Your task to perform on an android device: View the shopping cart on bestbuy.com. Search for corsair k70 on bestbuy.com, select the first entry, add it to the cart, then select checkout. Image 0: 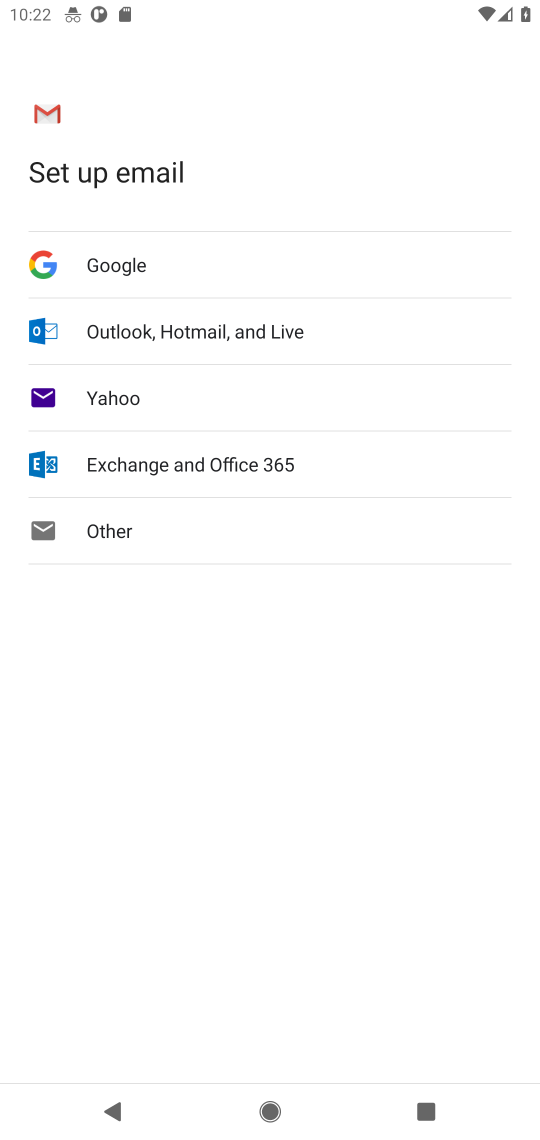
Step 0: press home button
Your task to perform on an android device: View the shopping cart on bestbuy.com. Search for corsair k70 on bestbuy.com, select the first entry, add it to the cart, then select checkout. Image 1: 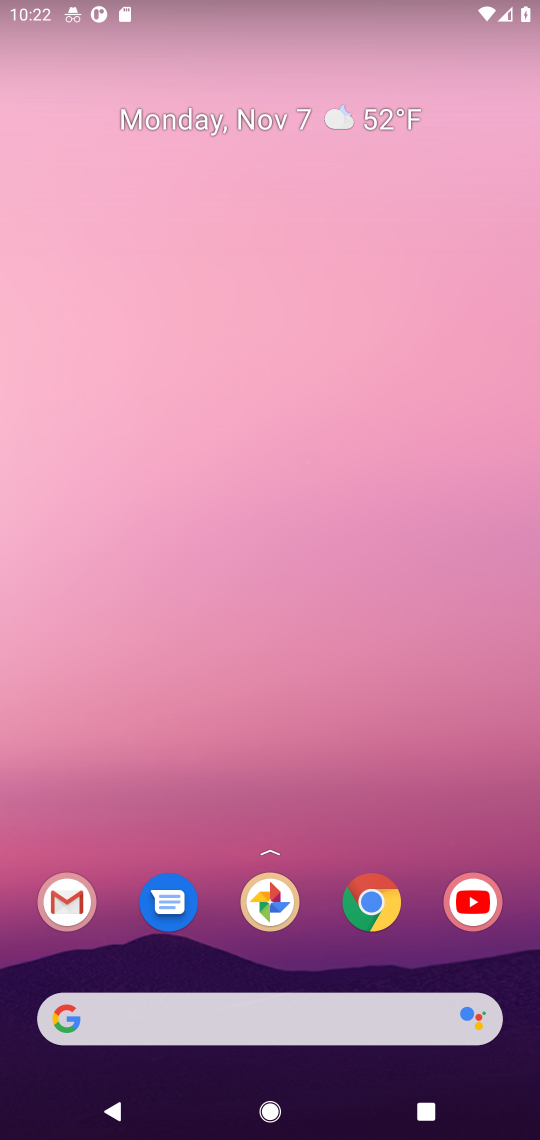
Step 1: click (376, 906)
Your task to perform on an android device: View the shopping cart on bestbuy.com. Search for corsair k70 on bestbuy.com, select the first entry, add it to the cart, then select checkout. Image 2: 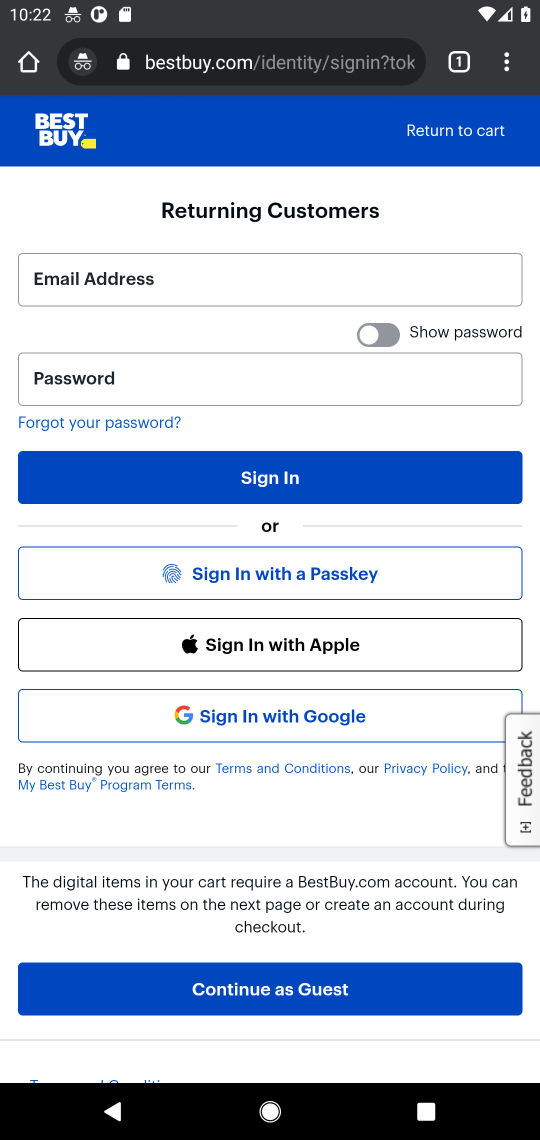
Step 2: click (256, 74)
Your task to perform on an android device: View the shopping cart on bestbuy.com. Search for corsair k70 on bestbuy.com, select the first entry, add it to the cart, then select checkout. Image 3: 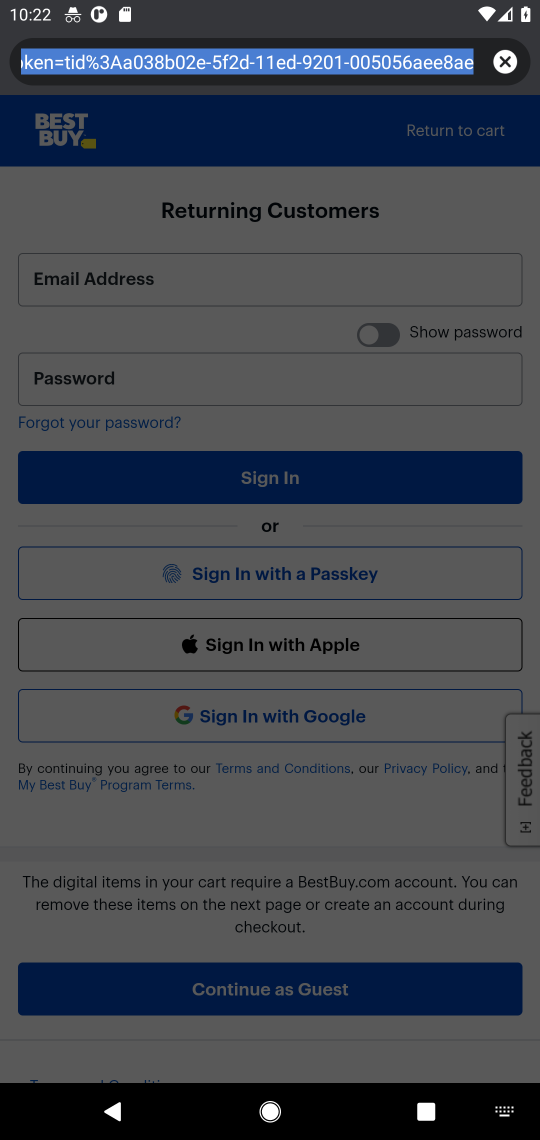
Step 3: click (256, 74)
Your task to perform on an android device: View the shopping cart on bestbuy.com. Search for corsair k70 on bestbuy.com, select the first entry, add it to the cart, then select checkout. Image 4: 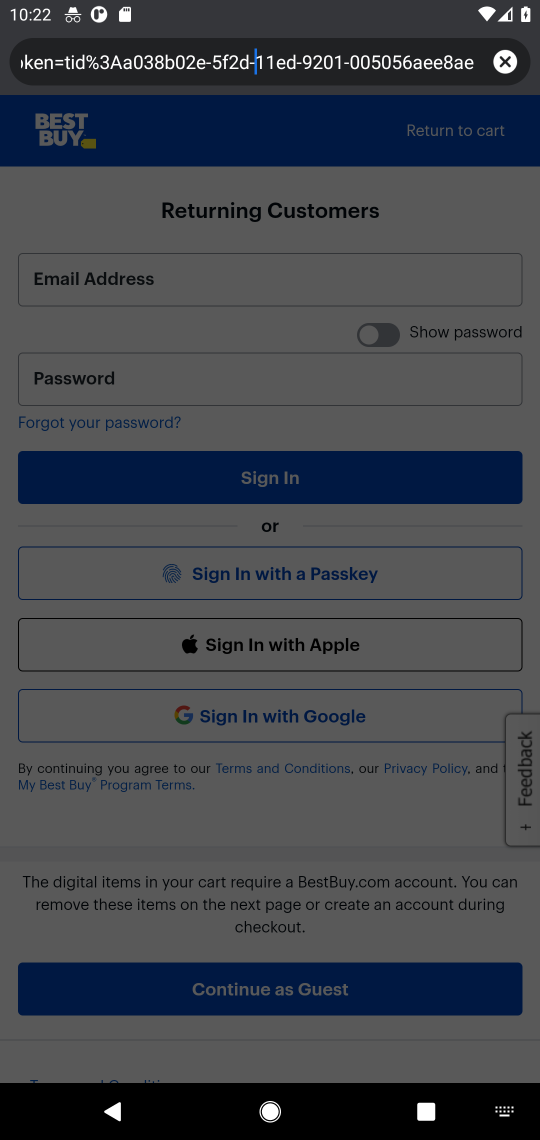
Step 4: click (266, 163)
Your task to perform on an android device: View the shopping cart on bestbuy.com. Search for corsair k70 on bestbuy.com, select the first entry, add it to the cart, then select checkout. Image 5: 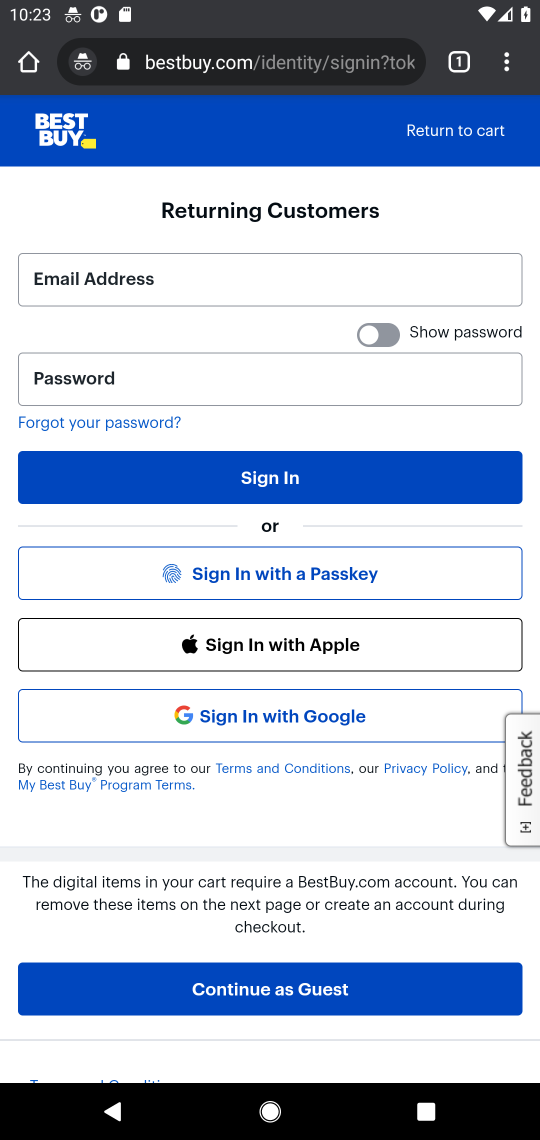
Step 5: click (460, 123)
Your task to perform on an android device: View the shopping cart on bestbuy.com. Search for corsair k70 on bestbuy.com, select the first entry, add it to the cart, then select checkout. Image 6: 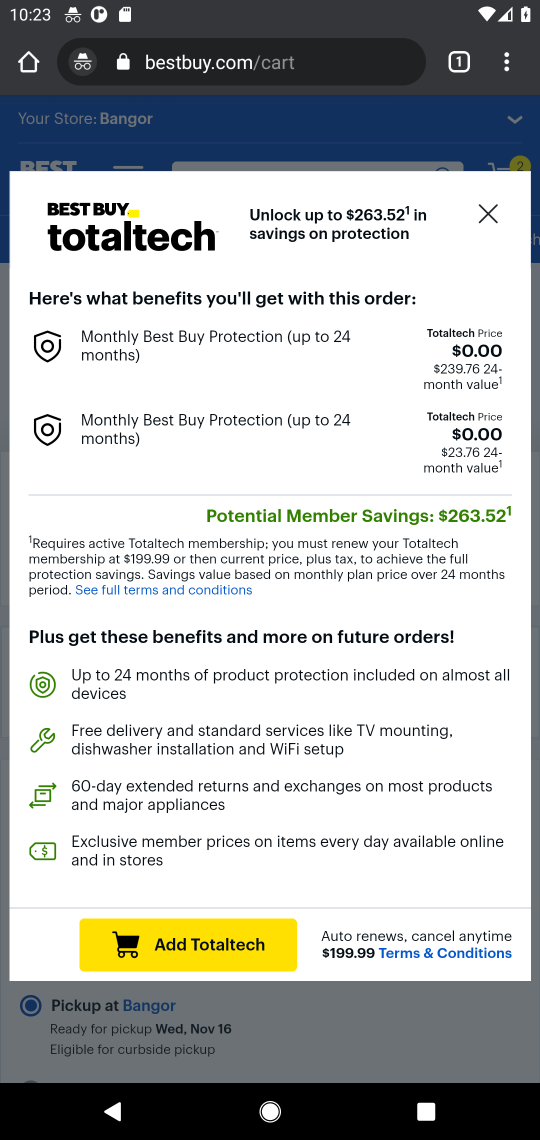
Step 6: click (491, 218)
Your task to perform on an android device: View the shopping cart on bestbuy.com. Search for corsair k70 on bestbuy.com, select the first entry, add it to the cart, then select checkout. Image 7: 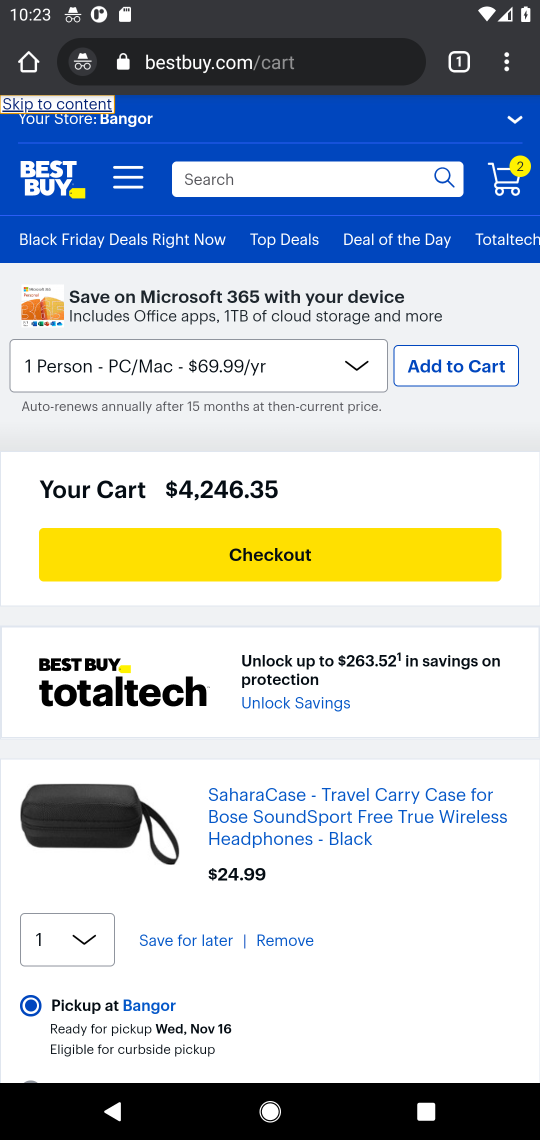
Step 7: drag from (197, 732) to (191, 470)
Your task to perform on an android device: View the shopping cart on bestbuy.com. Search for corsair k70 on bestbuy.com, select the first entry, add it to the cart, then select checkout. Image 8: 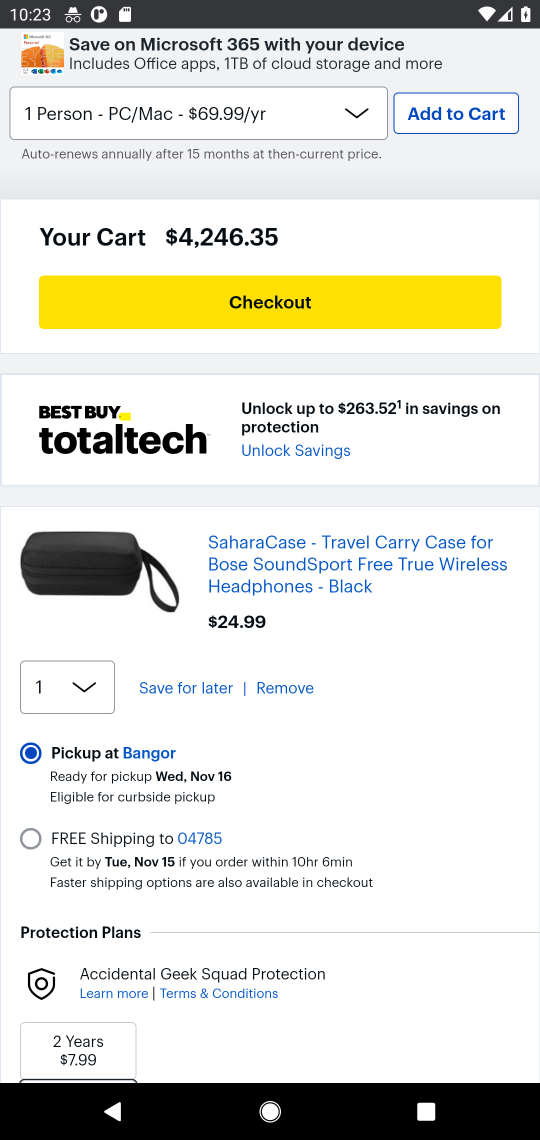
Step 8: drag from (336, 269) to (330, 665)
Your task to perform on an android device: View the shopping cart on bestbuy.com. Search for corsair k70 on bestbuy.com, select the first entry, add it to the cart, then select checkout. Image 9: 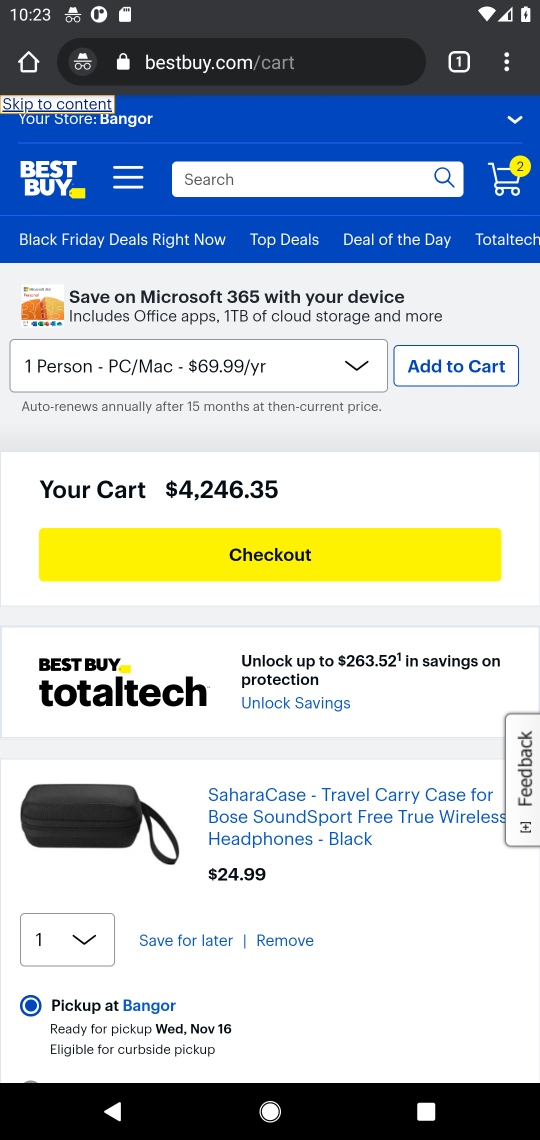
Step 9: click (232, 183)
Your task to perform on an android device: View the shopping cart on bestbuy.com. Search for corsair k70 on bestbuy.com, select the first entry, add it to the cart, then select checkout. Image 10: 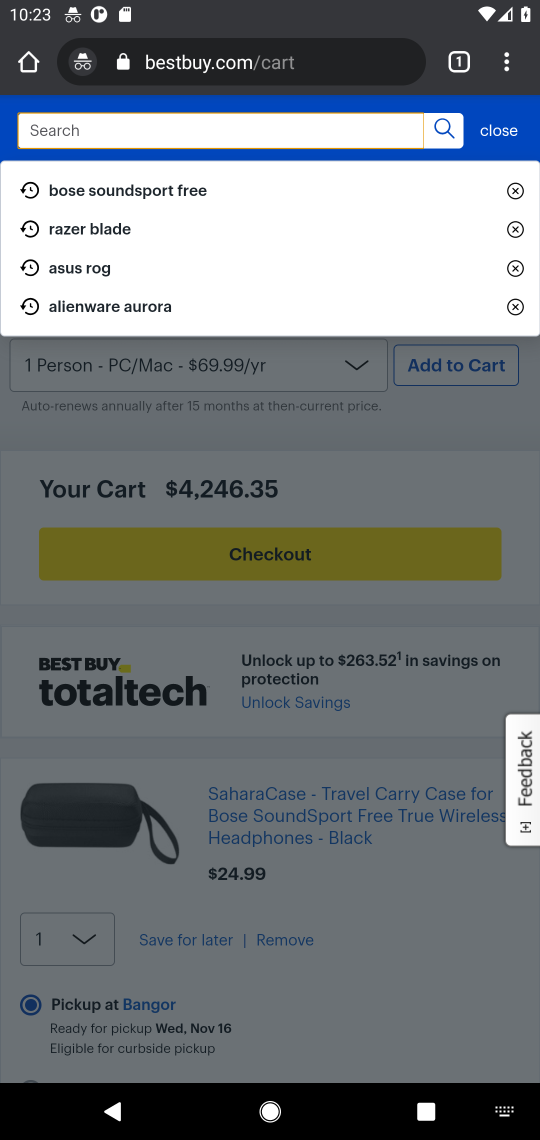
Step 10: type "corsair k70"
Your task to perform on an android device: View the shopping cart on bestbuy.com. Search for corsair k70 on bestbuy.com, select the first entry, add it to the cart, then select checkout. Image 11: 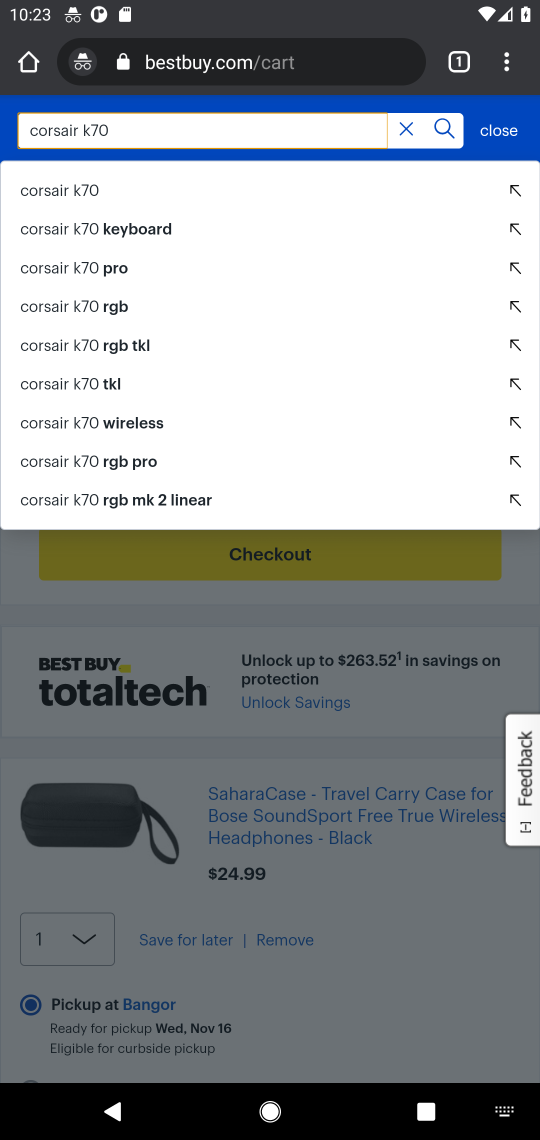
Step 11: click (64, 194)
Your task to perform on an android device: View the shopping cart on bestbuy.com. Search for corsair k70 on bestbuy.com, select the first entry, add it to the cart, then select checkout. Image 12: 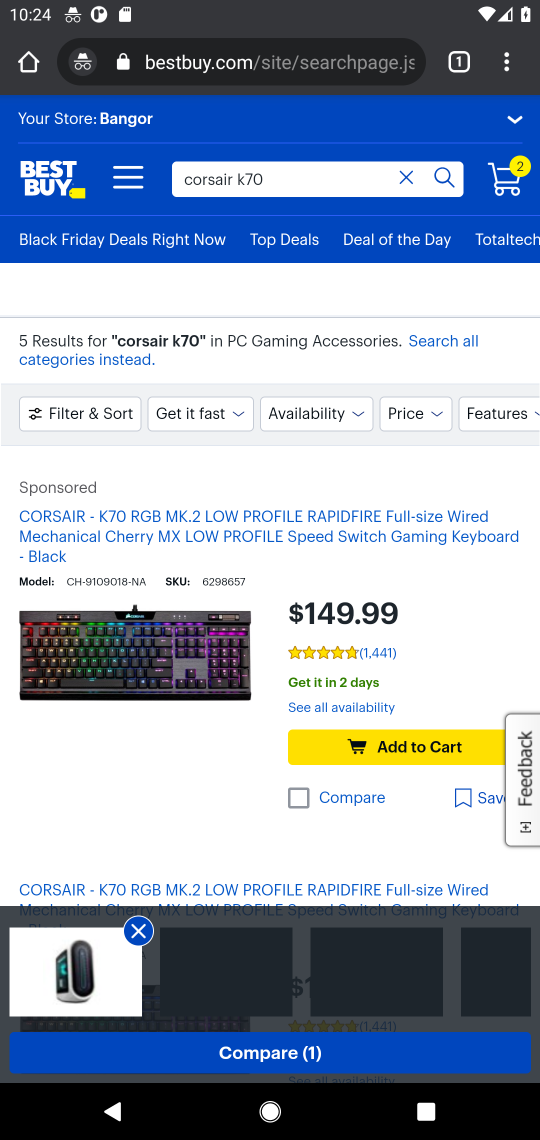
Step 12: click (399, 749)
Your task to perform on an android device: View the shopping cart on bestbuy.com. Search for corsair k70 on bestbuy.com, select the first entry, add it to the cart, then select checkout. Image 13: 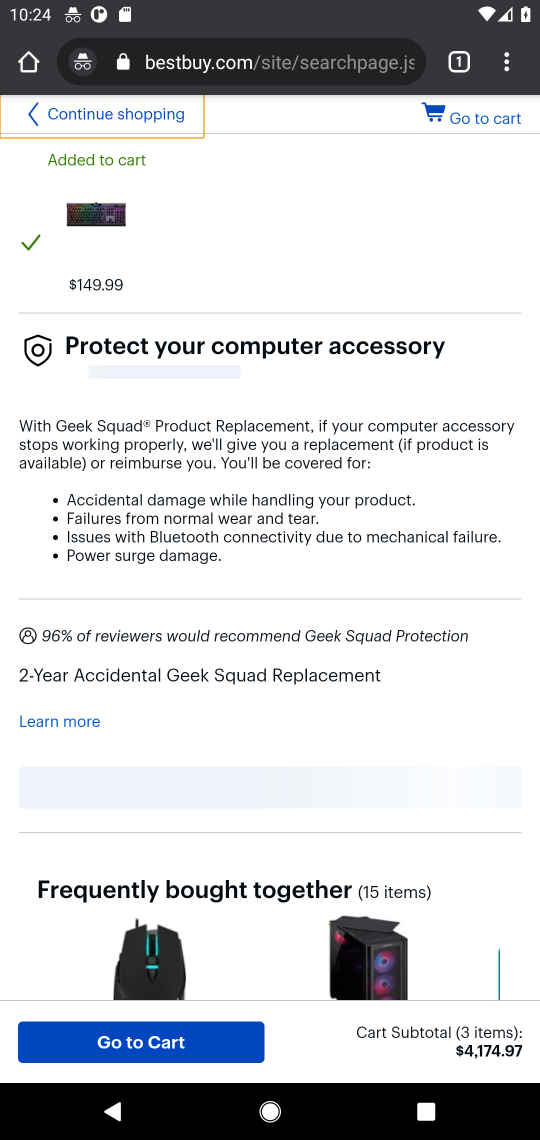
Step 13: click (491, 119)
Your task to perform on an android device: View the shopping cart on bestbuy.com. Search for corsair k70 on bestbuy.com, select the first entry, add it to the cart, then select checkout. Image 14: 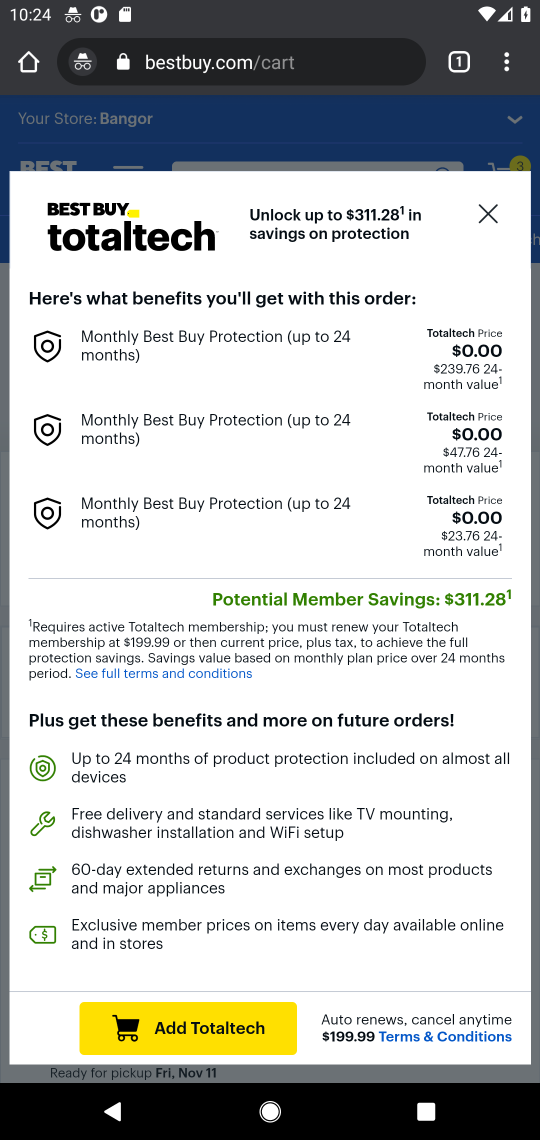
Step 14: click (491, 218)
Your task to perform on an android device: View the shopping cart on bestbuy.com. Search for corsair k70 on bestbuy.com, select the first entry, add it to the cart, then select checkout. Image 15: 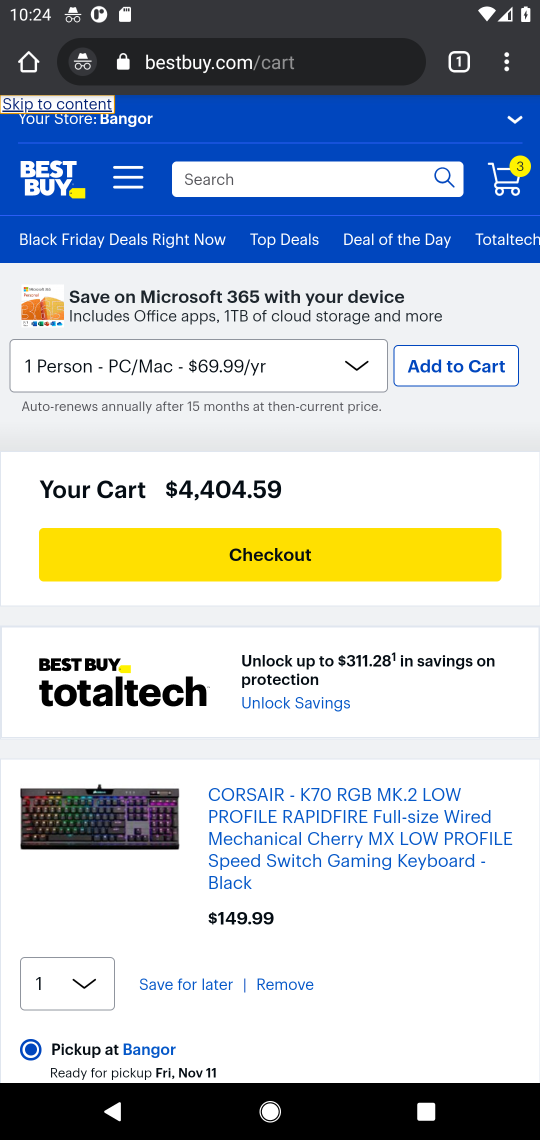
Step 15: click (260, 554)
Your task to perform on an android device: View the shopping cart on bestbuy.com. Search for corsair k70 on bestbuy.com, select the first entry, add it to the cart, then select checkout. Image 16: 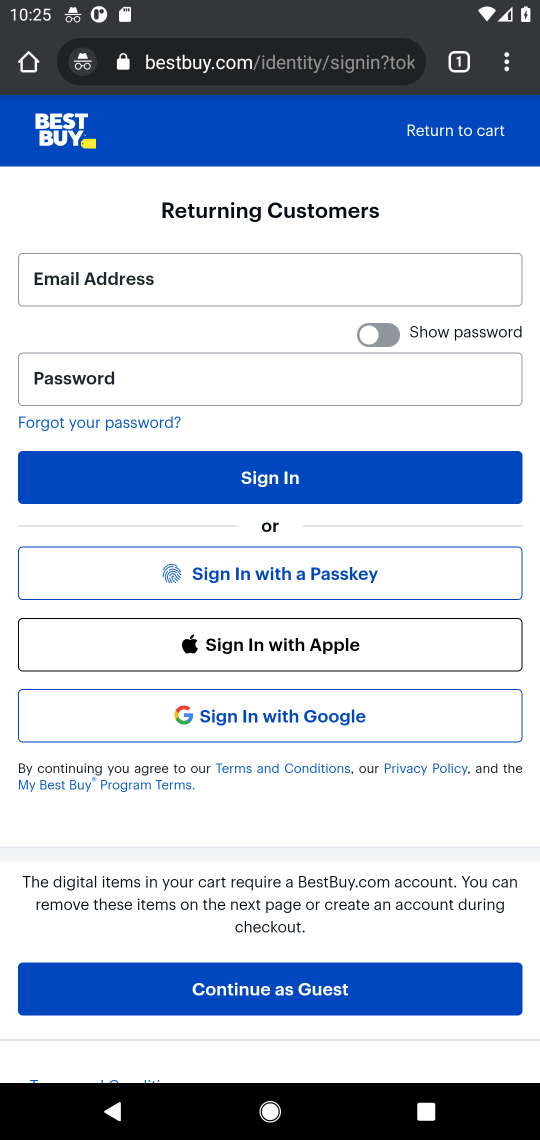
Step 16: task complete